Your task to perform on an android device: change your default location settings in chrome Image 0: 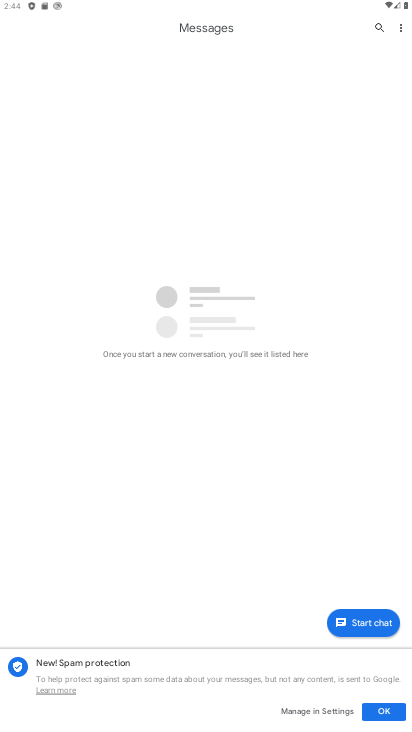
Step 0: press home button
Your task to perform on an android device: change your default location settings in chrome Image 1: 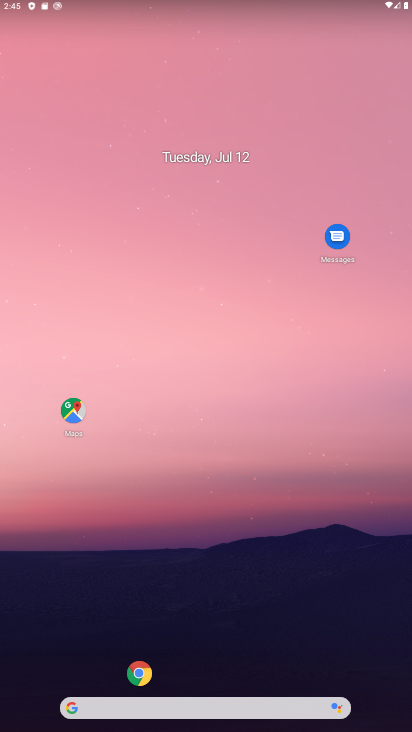
Step 1: click (131, 672)
Your task to perform on an android device: change your default location settings in chrome Image 2: 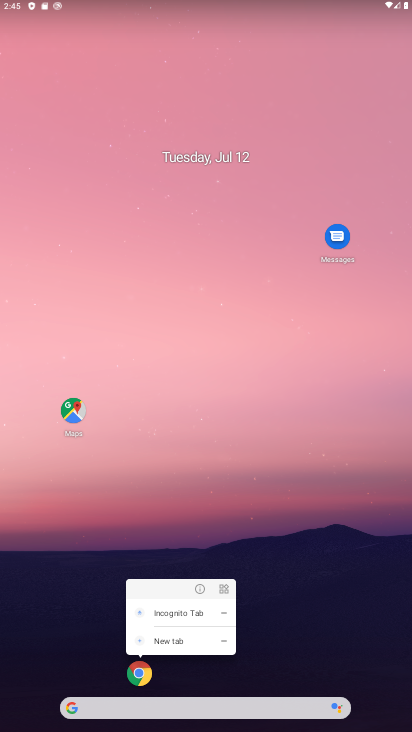
Step 2: click (148, 669)
Your task to perform on an android device: change your default location settings in chrome Image 3: 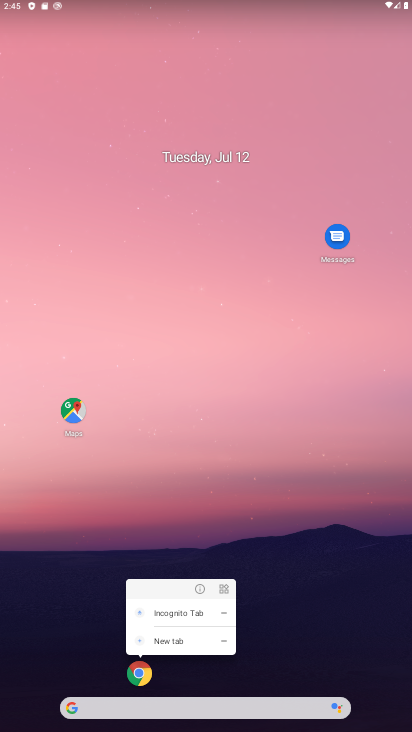
Step 3: click (128, 674)
Your task to perform on an android device: change your default location settings in chrome Image 4: 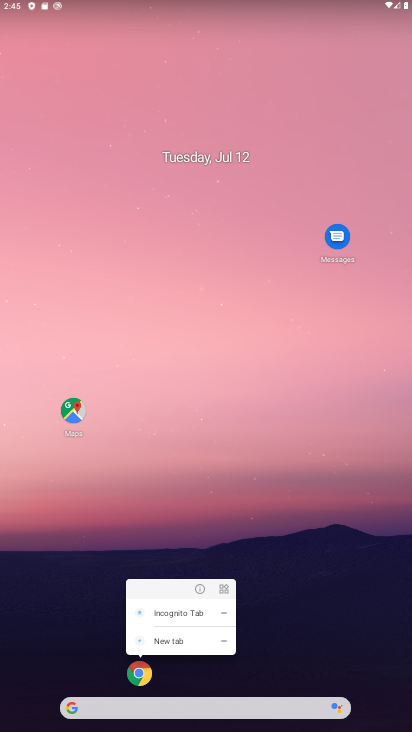
Step 4: task complete